Your task to perform on an android device: Open ESPN.com Image 0: 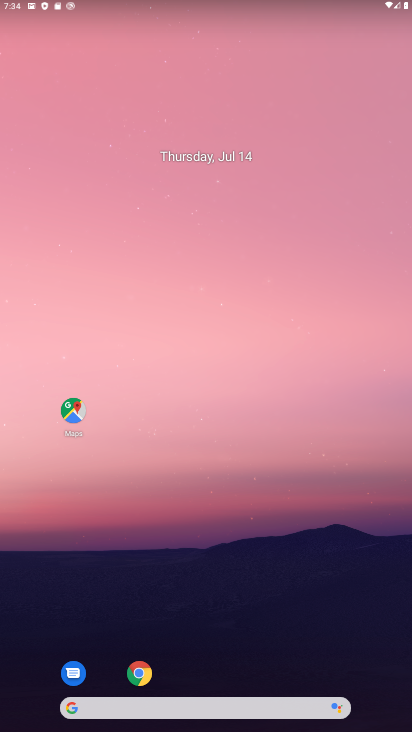
Step 0: drag from (265, 452) to (343, 225)
Your task to perform on an android device: Open ESPN.com Image 1: 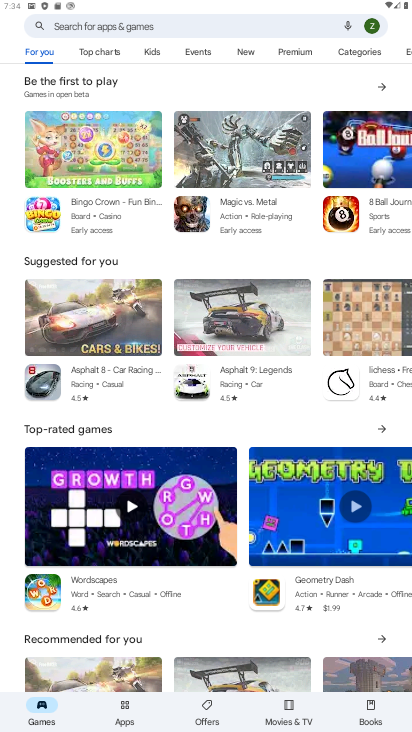
Step 1: drag from (263, 564) to (327, 255)
Your task to perform on an android device: Open ESPN.com Image 2: 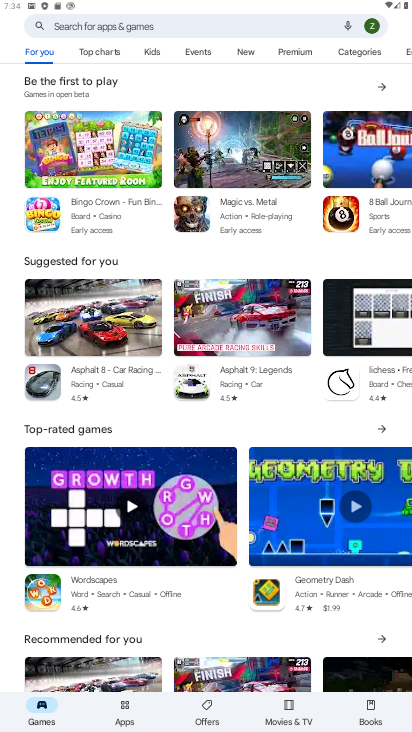
Step 2: drag from (231, 572) to (286, 223)
Your task to perform on an android device: Open ESPN.com Image 3: 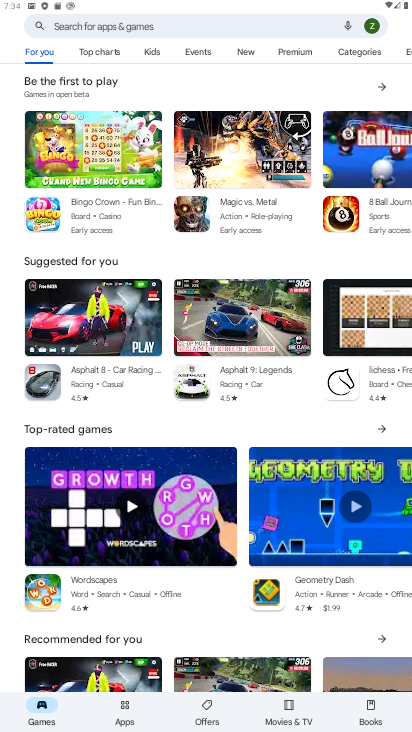
Step 3: press home button
Your task to perform on an android device: Open ESPN.com Image 4: 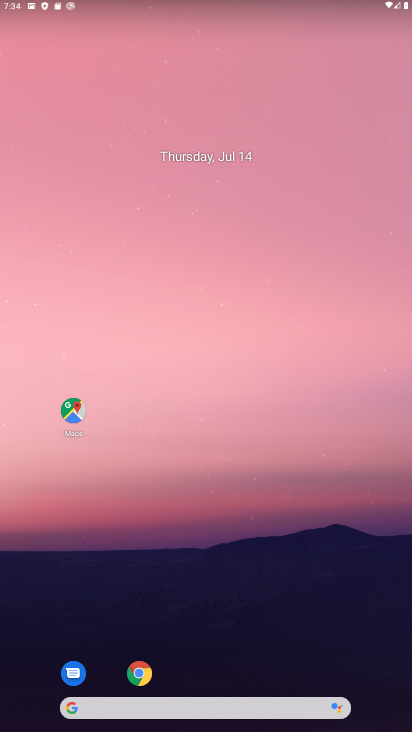
Step 4: drag from (183, 551) to (258, 128)
Your task to perform on an android device: Open ESPN.com Image 5: 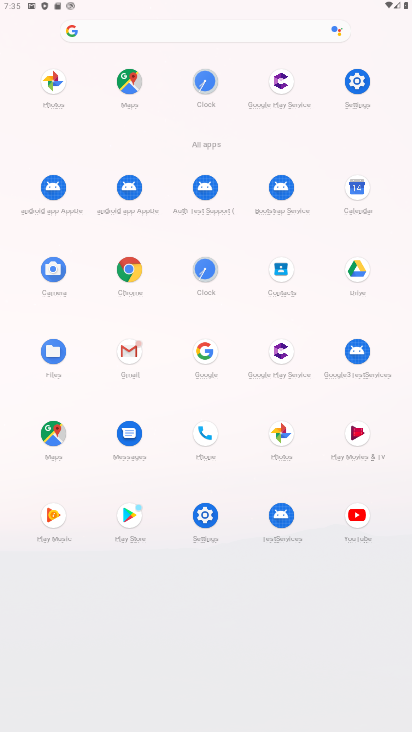
Step 5: click (173, 32)
Your task to perform on an android device: Open ESPN.com Image 6: 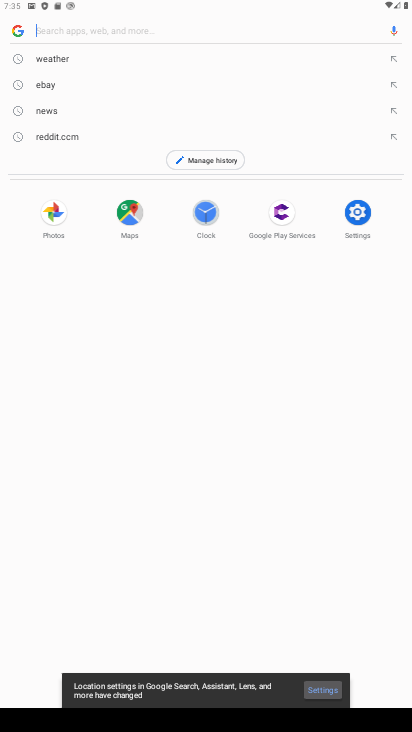
Step 6: type "ESPN"
Your task to perform on an android device: Open ESPN.com Image 7: 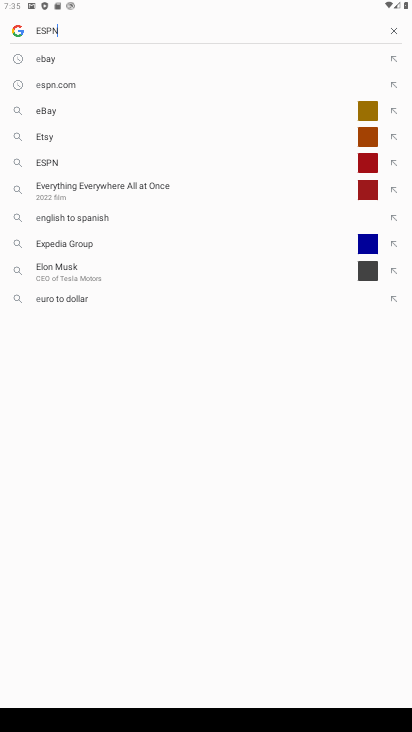
Step 7: type ""
Your task to perform on an android device: Open ESPN.com Image 8: 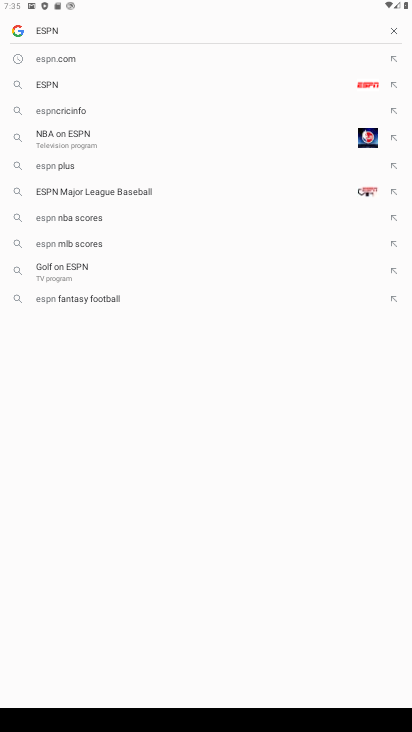
Step 8: click (113, 65)
Your task to perform on an android device: Open ESPN.com Image 9: 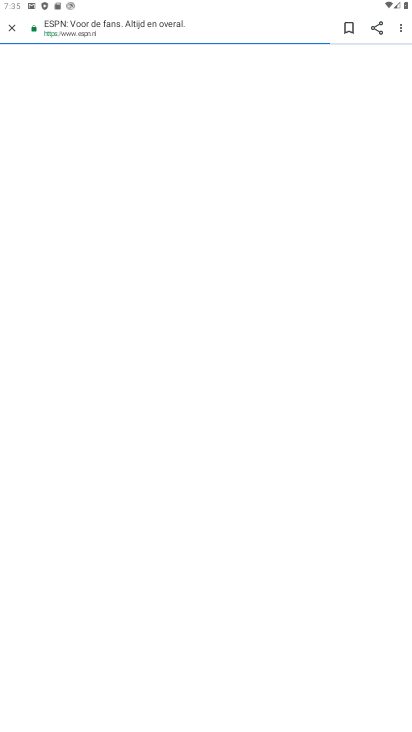
Step 9: task complete